Your task to perform on an android device: turn on translation in the chrome app Image 0: 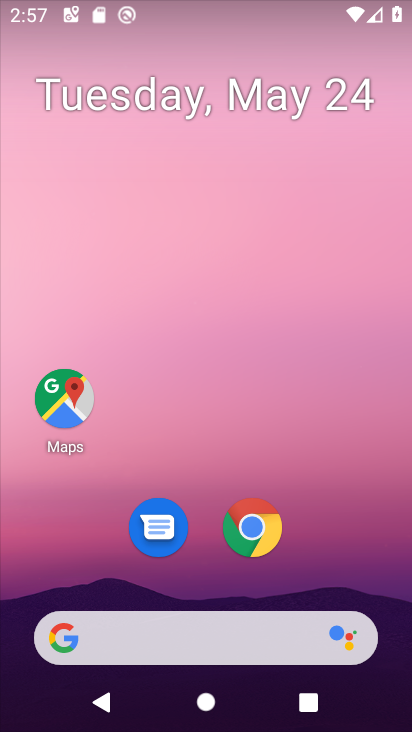
Step 0: click (251, 526)
Your task to perform on an android device: turn on translation in the chrome app Image 1: 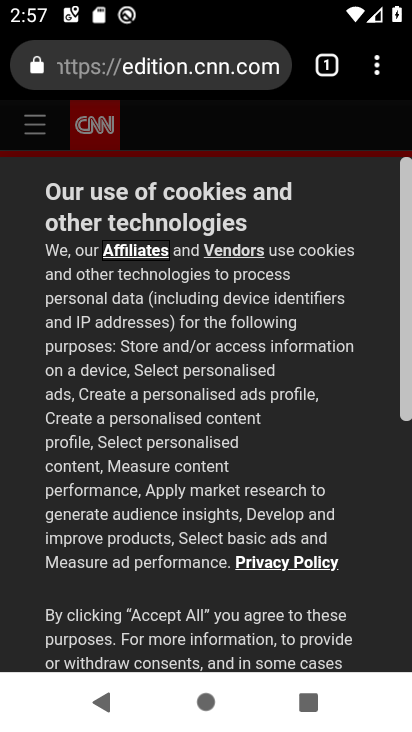
Step 1: click (381, 67)
Your task to perform on an android device: turn on translation in the chrome app Image 2: 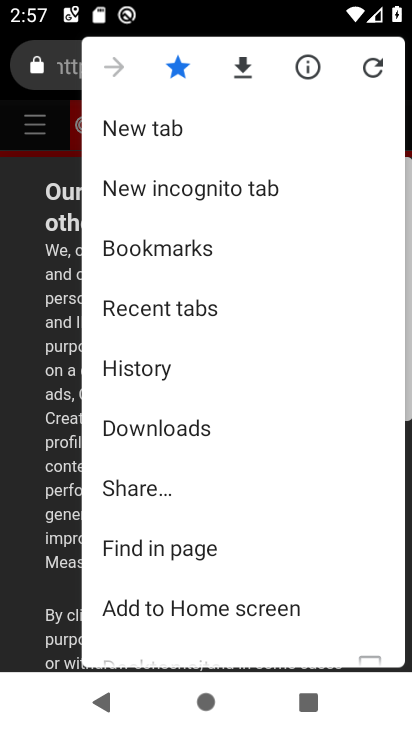
Step 2: drag from (268, 576) to (267, 192)
Your task to perform on an android device: turn on translation in the chrome app Image 3: 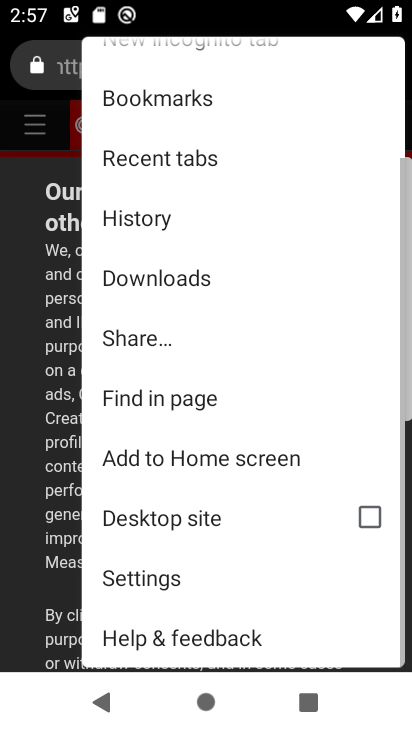
Step 3: click (127, 578)
Your task to perform on an android device: turn on translation in the chrome app Image 4: 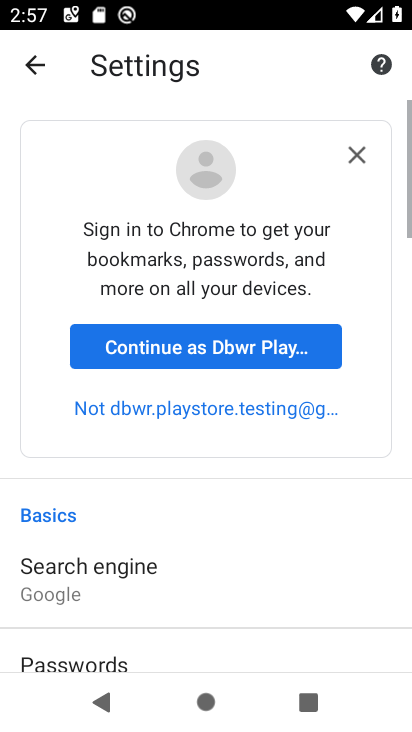
Step 4: drag from (193, 584) to (202, 281)
Your task to perform on an android device: turn on translation in the chrome app Image 5: 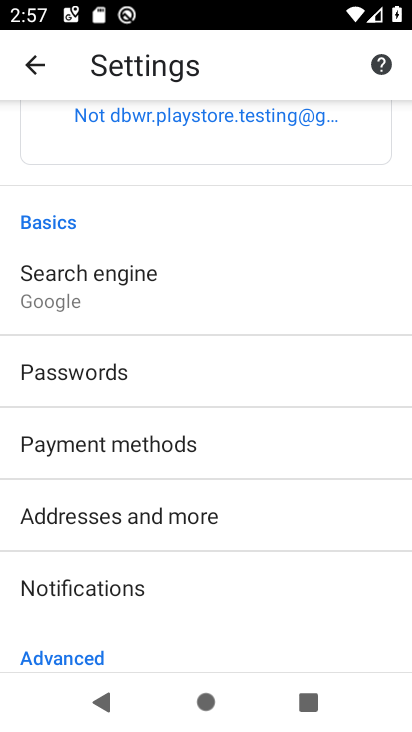
Step 5: drag from (213, 578) to (230, 152)
Your task to perform on an android device: turn on translation in the chrome app Image 6: 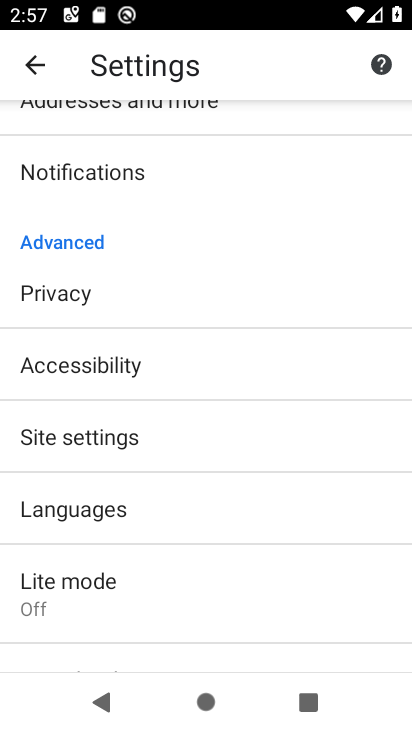
Step 6: click (77, 514)
Your task to perform on an android device: turn on translation in the chrome app Image 7: 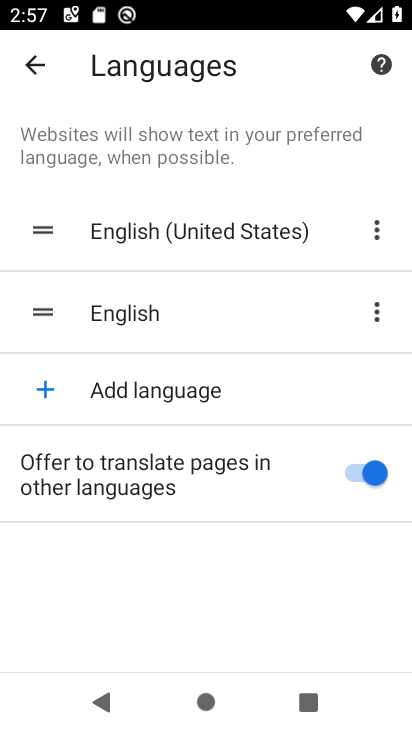
Step 7: task complete